Your task to perform on an android device: Open Amazon Image 0: 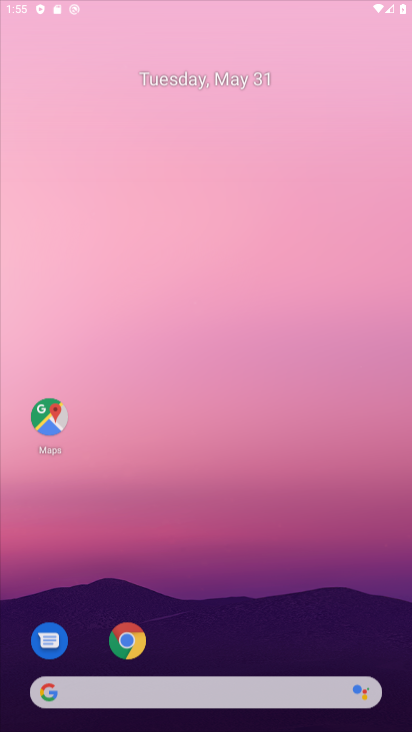
Step 0: drag from (353, 80) to (379, 0)
Your task to perform on an android device: Open Amazon Image 1: 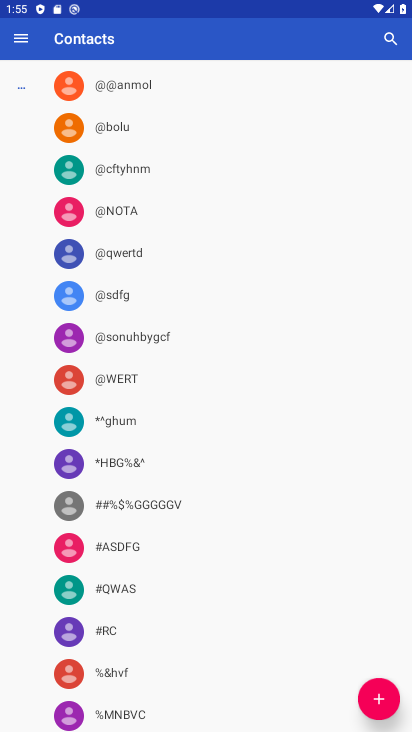
Step 1: press home button
Your task to perform on an android device: Open Amazon Image 2: 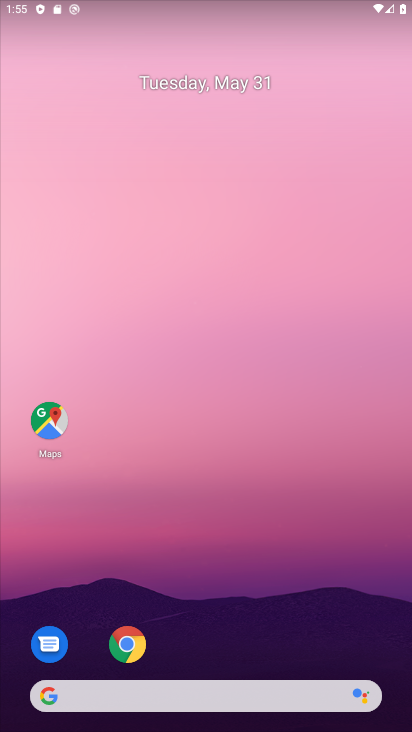
Step 2: click (141, 648)
Your task to perform on an android device: Open Amazon Image 3: 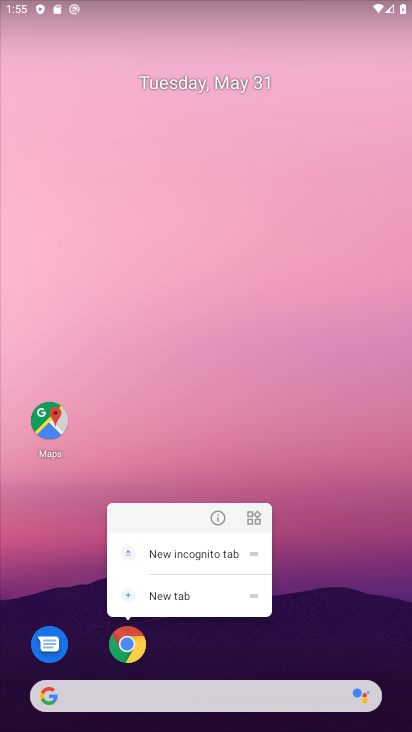
Step 3: click (136, 644)
Your task to perform on an android device: Open Amazon Image 4: 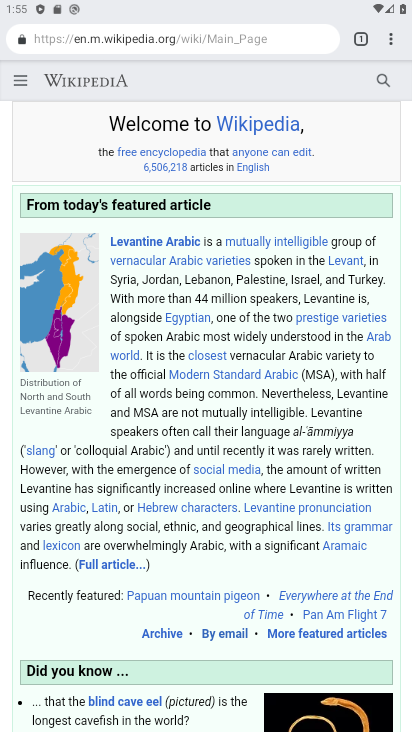
Step 4: click (227, 34)
Your task to perform on an android device: Open Amazon Image 5: 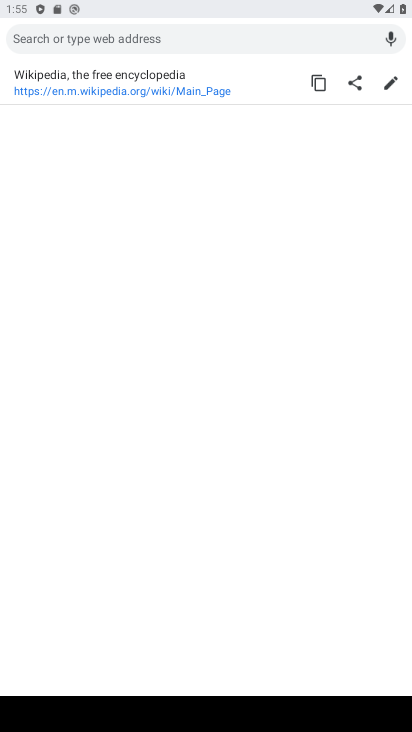
Step 5: type "amazon"
Your task to perform on an android device: Open Amazon Image 6: 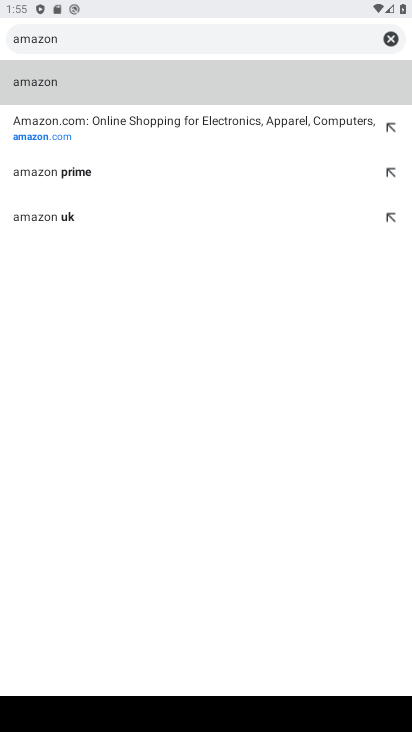
Step 6: click (54, 91)
Your task to perform on an android device: Open Amazon Image 7: 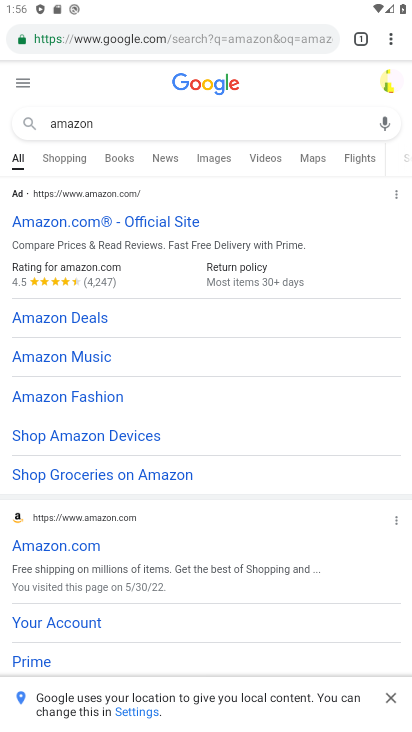
Step 7: click (99, 216)
Your task to perform on an android device: Open Amazon Image 8: 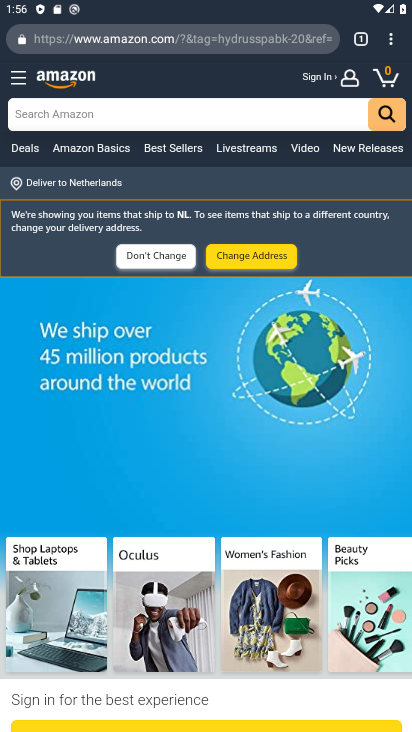
Step 8: task complete